Your task to perform on an android device: Clear the cart on costco.com. Image 0: 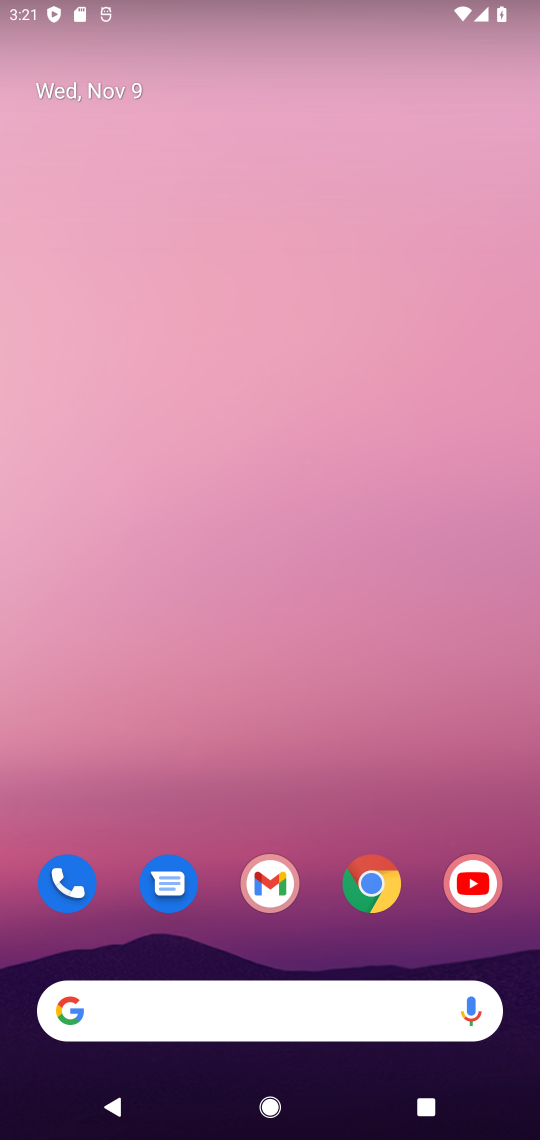
Step 0: click (374, 887)
Your task to perform on an android device: Clear the cart on costco.com. Image 1: 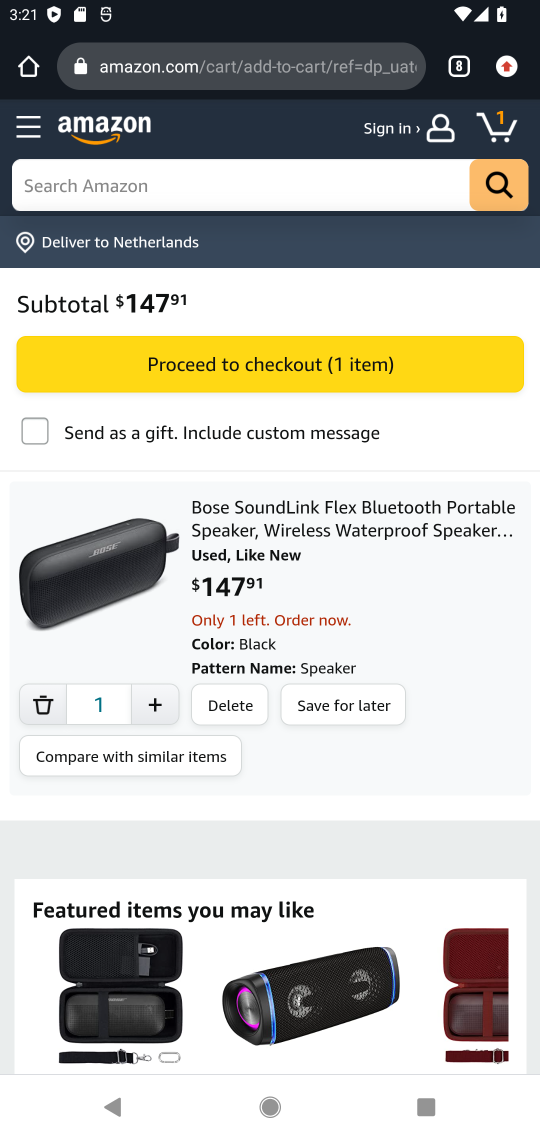
Step 1: click (455, 67)
Your task to perform on an android device: Clear the cart on costco.com. Image 2: 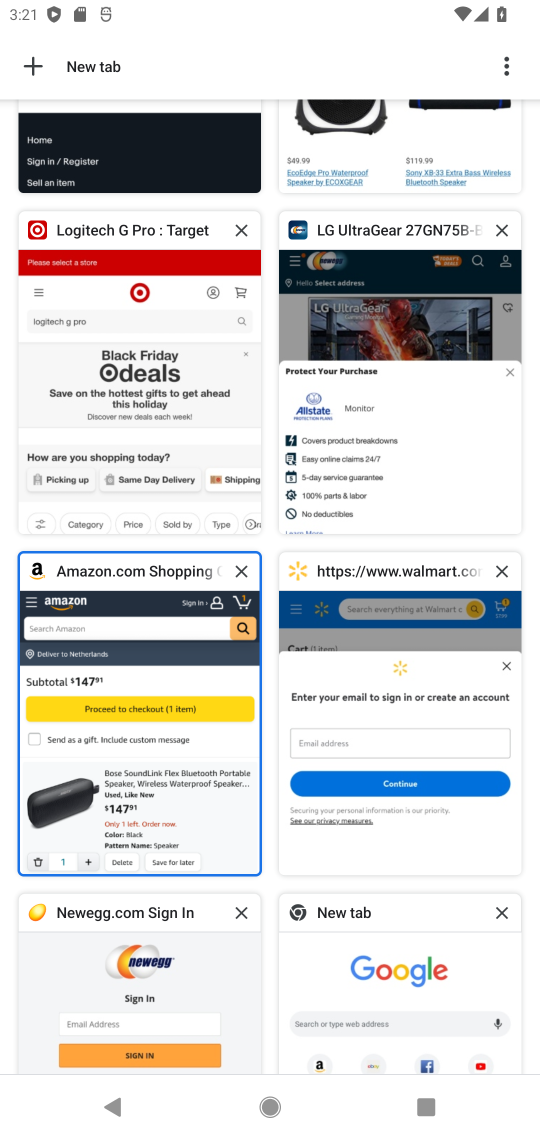
Step 2: click (420, 146)
Your task to perform on an android device: Clear the cart on costco.com. Image 3: 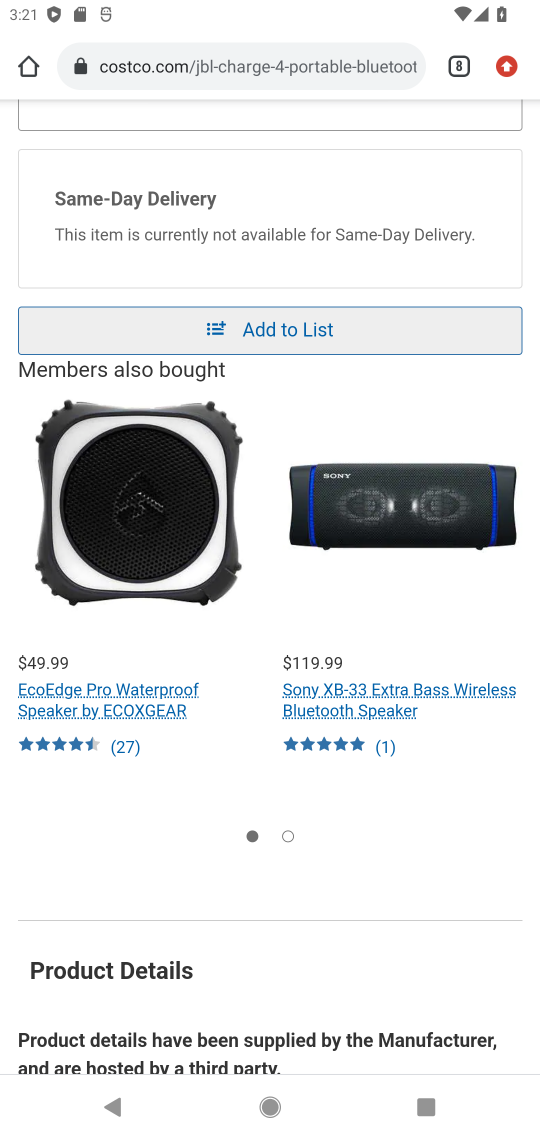
Step 3: task complete